Your task to perform on an android device: all mails in gmail Image 0: 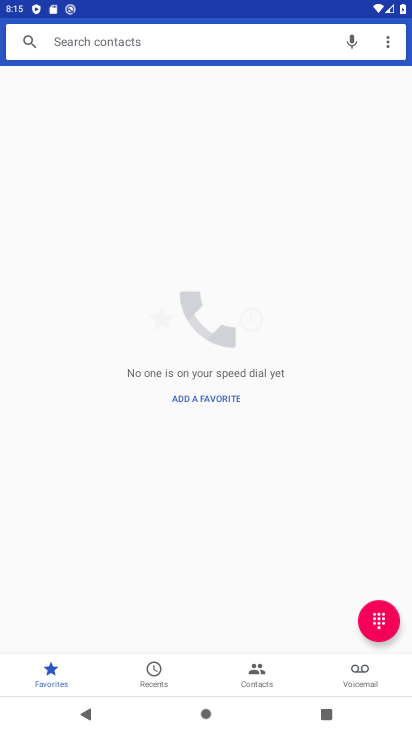
Step 0: press back button
Your task to perform on an android device: all mails in gmail Image 1: 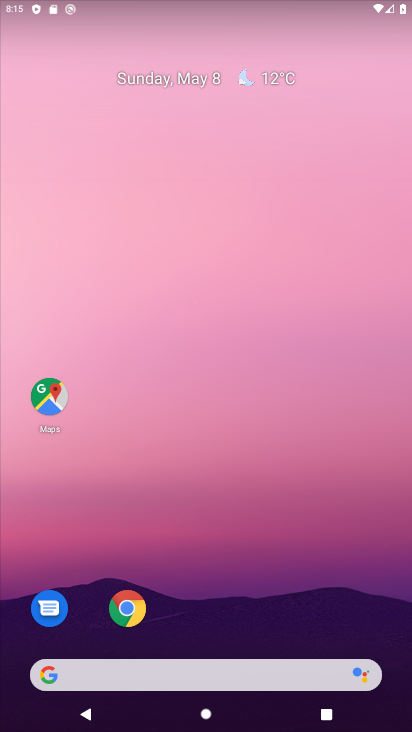
Step 1: drag from (262, 572) to (213, 16)
Your task to perform on an android device: all mails in gmail Image 2: 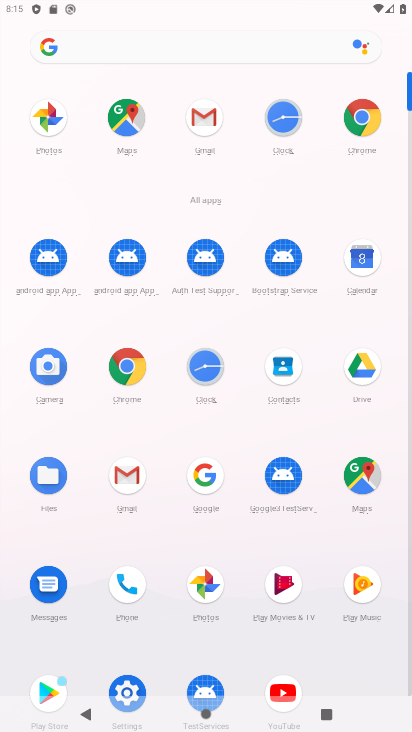
Step 2: click (200, 116)
Your task to perform on an android device: all mails in gmail Image 3: 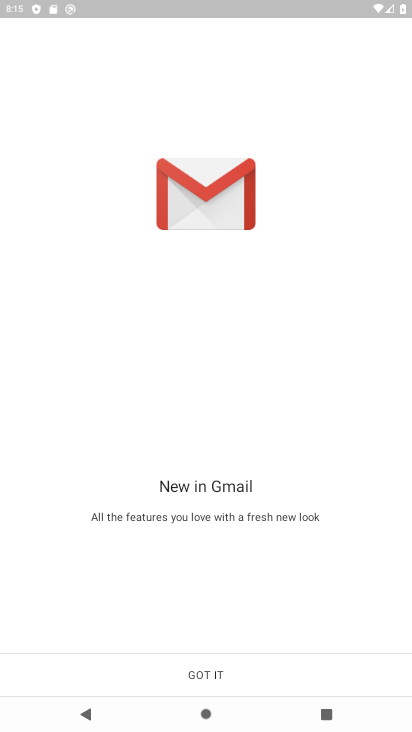
Step 3: click (213, 660)
Your task to perform on an android device: all mails in gmail Image 4: 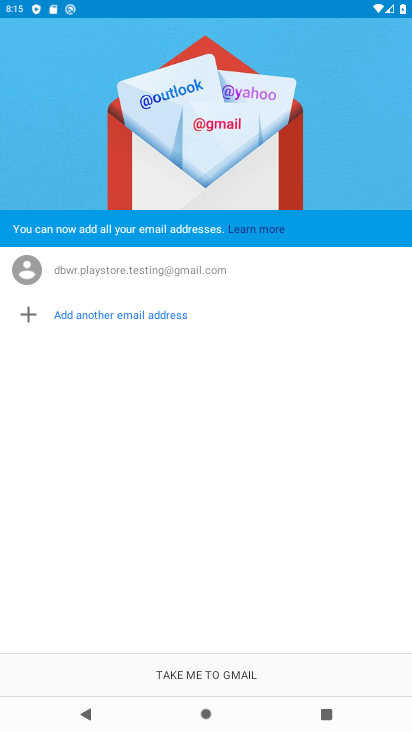
Step 4: click (213, 659)
Your task to perform on an android device: all mails in gmail Image 5: 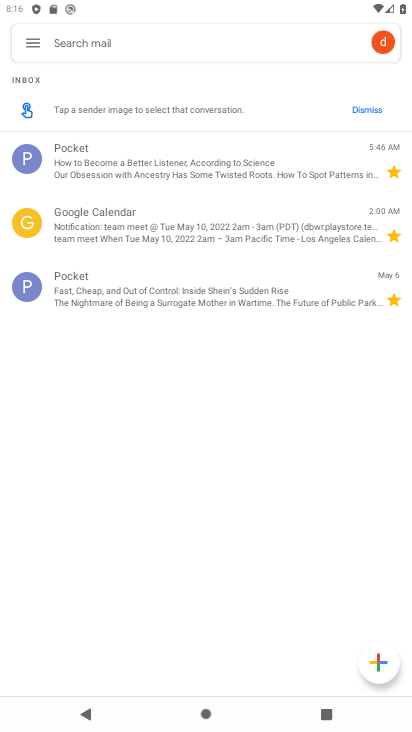
Step 5: click (28, 42)
Your task to perform on an android device: all mails in gmail Image 6: 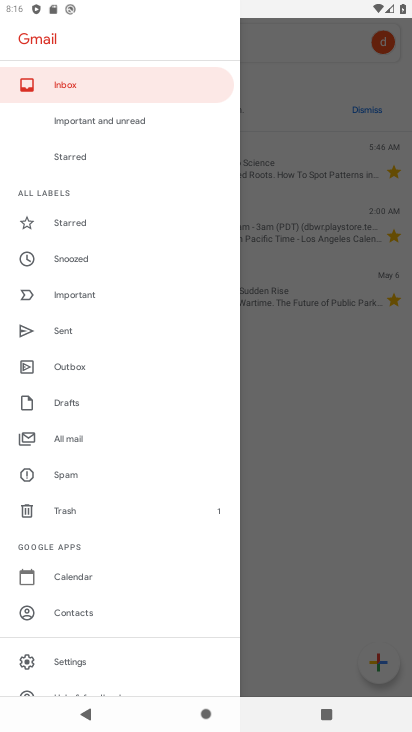
Step 6: drag from (141, 574) to (151, 148)
Your task to perform on an android device: all mails in gmail Image 7: 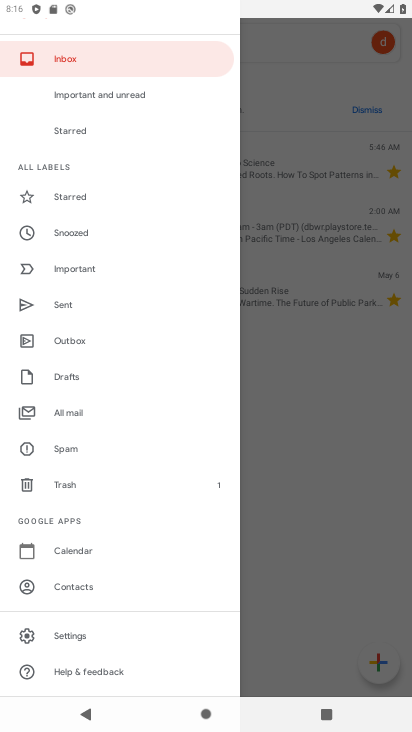
Step 7: click (82, 409)
Your task to perform on an android device: all mails in gmail Image 8: 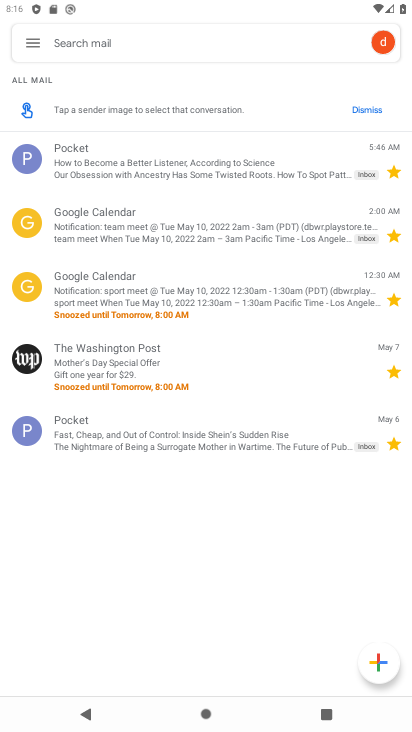
Step 8: task complete